Your task to perform on an android device: change timer sound Image 0: 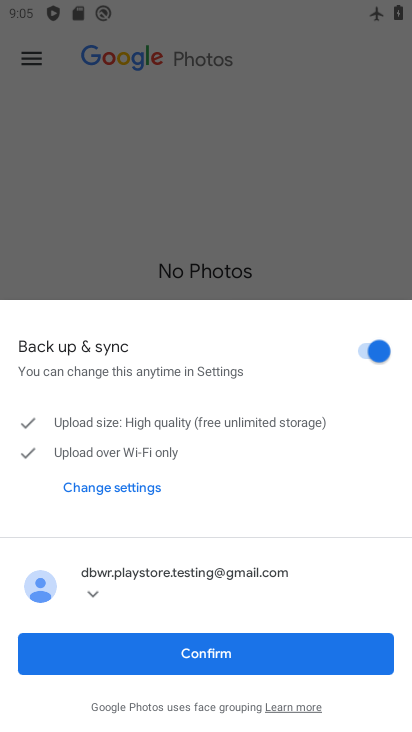
Step 0: press home button
Your task to perform on an android device: change timer sound Image 1: 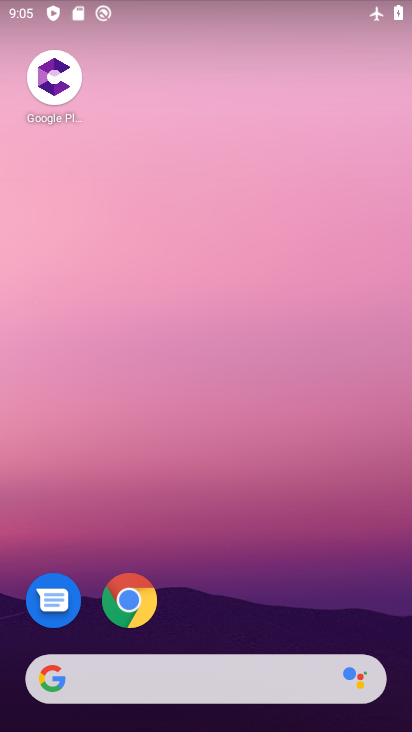
Step 1: drag from (283, 433) to (249, 48)
Your task to perform on an android device: change timer sound Image 2: 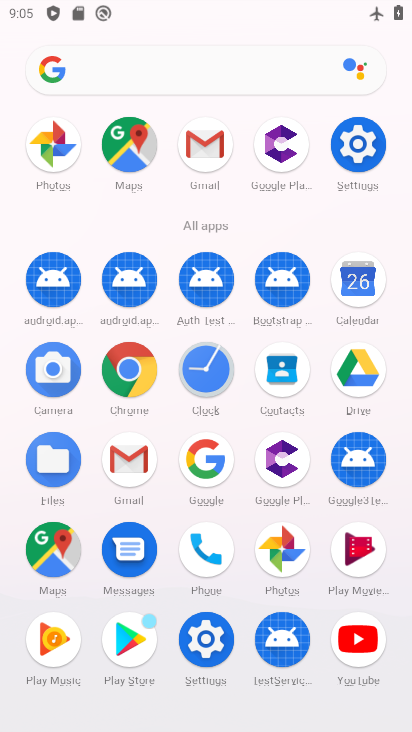
Step 2: click (377, 129)
Your task to perform on an android device: change timer sound Image 3: 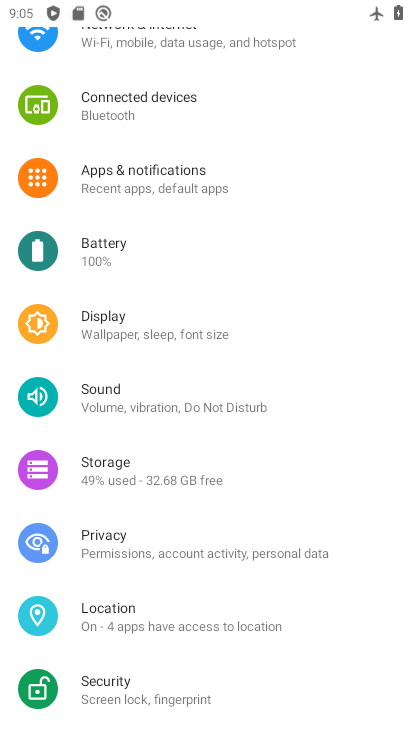
Step 3: press home button
Your task to perform on an android device: change timer sound Image 4: 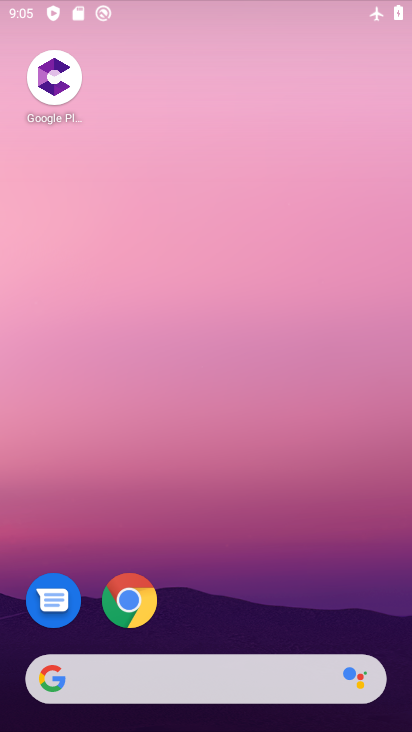
Step 4: drag from (282, 614) to (266, 128)
Your task to perform on an android device: change timer sound Image 5: 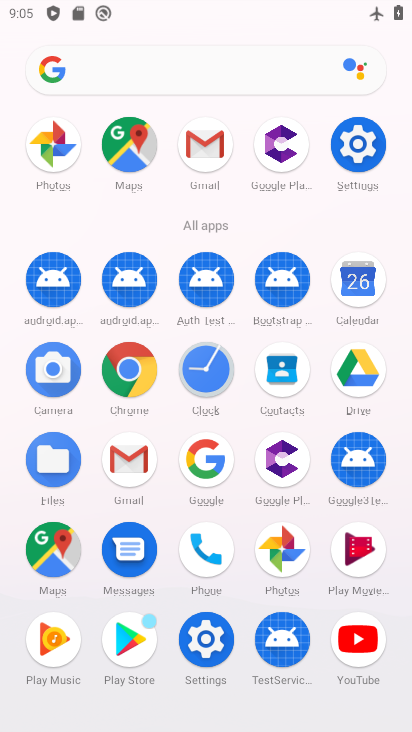
Step 5: click (199, 370)
Your task to perform on an android device: change timer sound Image 6: 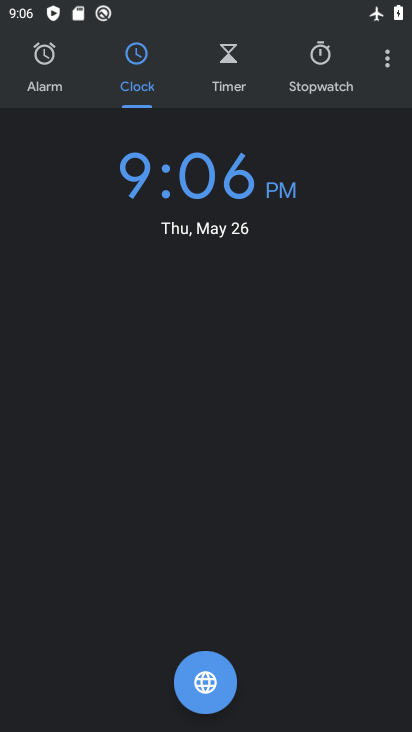
Step 6: click (397, 55)
Your task to perform on an android device: change timer sound Image 7: 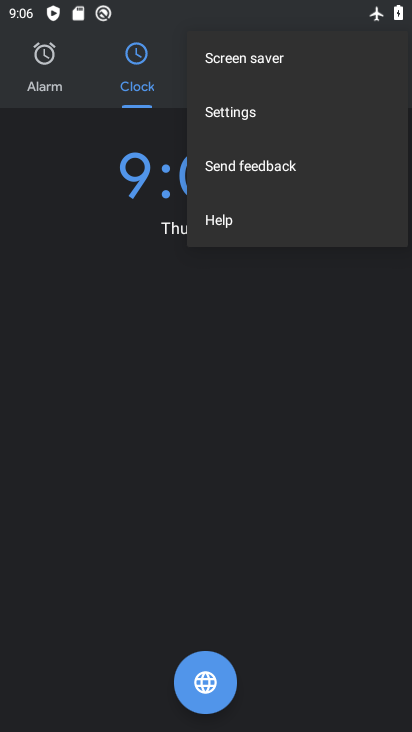
Step 7: click (261, 105)
Your task to perform on an android device: change timer sound Image 8: 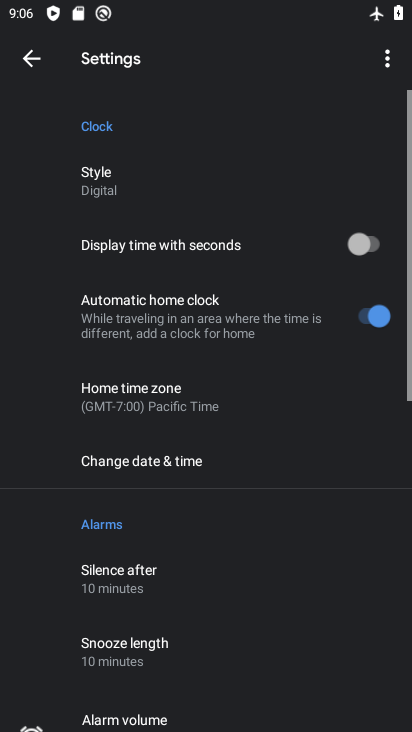
Step 8: drag from (257, 575) to (292, 51)
Your task to perform on an android device: change timer sound Image 9: 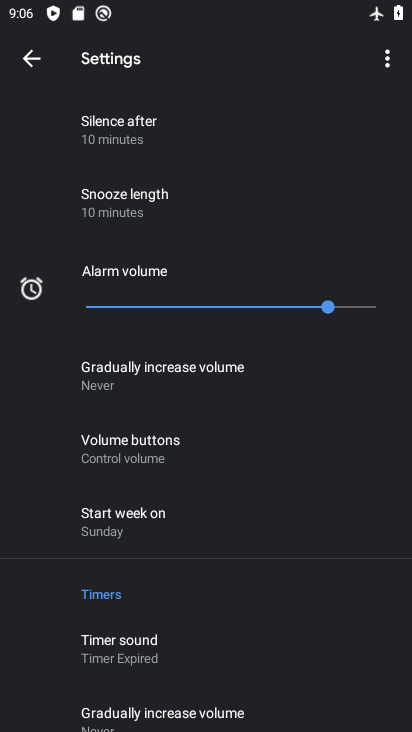
Step 9: click (163, 651)
Your task to perform on an android device: change timer sound Image 10: 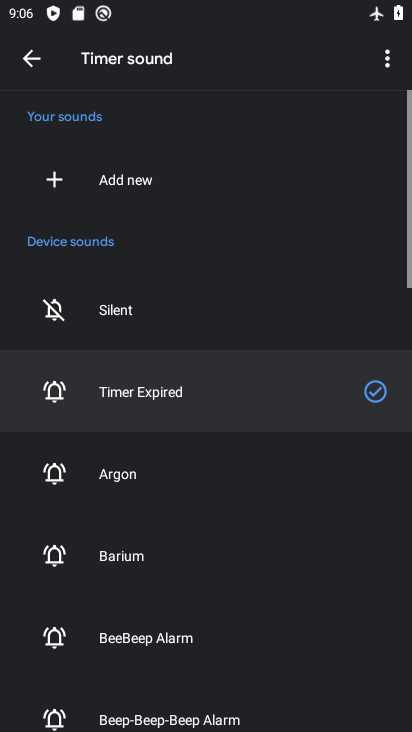
Step 10: click (149, 470)
Your task to perform on an android device: change timer sound Image 11: 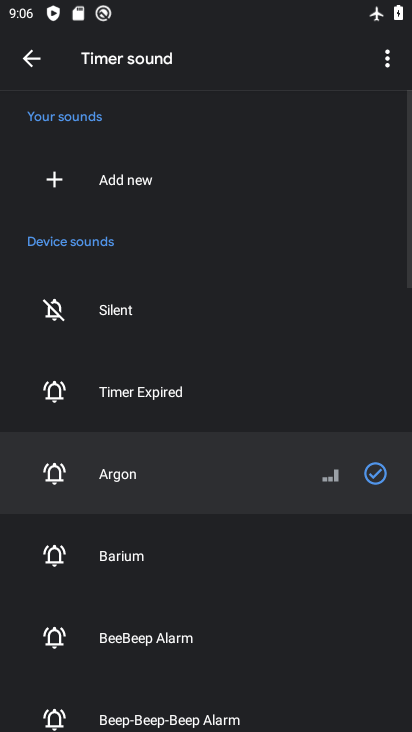
Step 11: task complete